Your task to perform on an android device: empty trash in google photos Image 0: 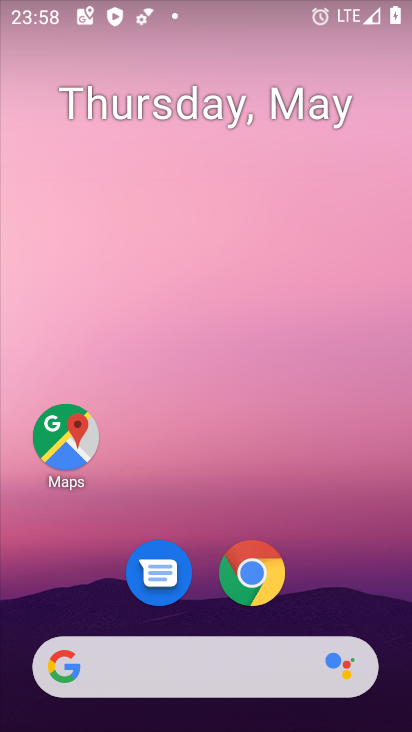
Step 0: drag from (200, 616) to (196, 215)
Your task to perform on an android device: empty trash in google photos Image 1: 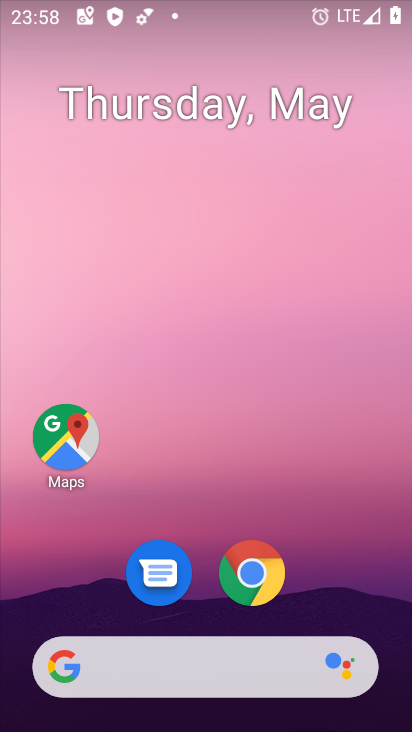
Step 1: drag from (206, 609) to (206, 186)
Your task to perform on an android device: empty trash in google photos Image 2: 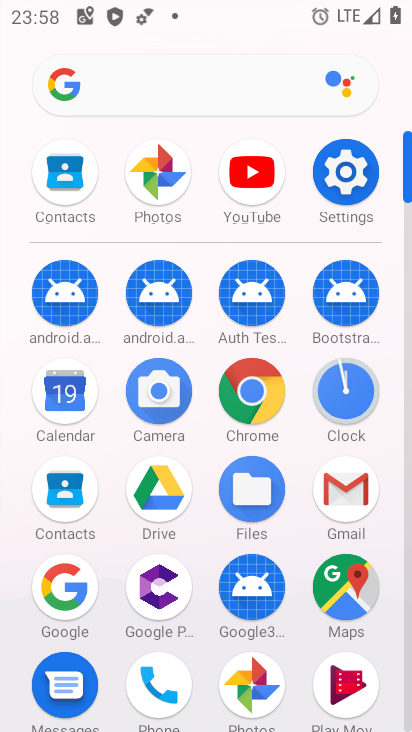
Step 2: click (233, 663)
Your task to perform on an android device: empty trash in google photos Image 3: 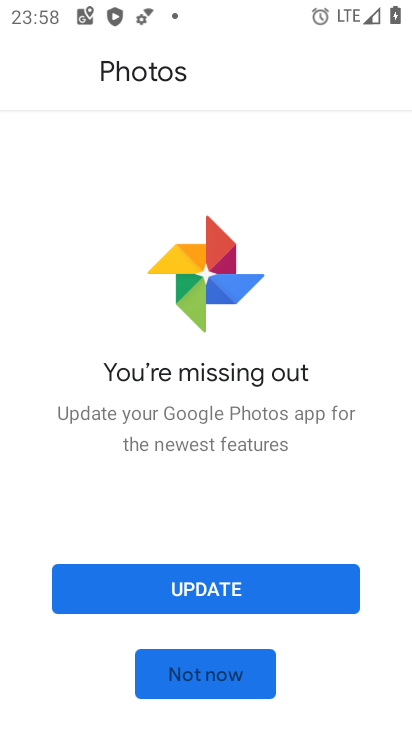
Step 3: click (164, 685)
Your task to perform on an android device: empty trash in google photos Image 4: 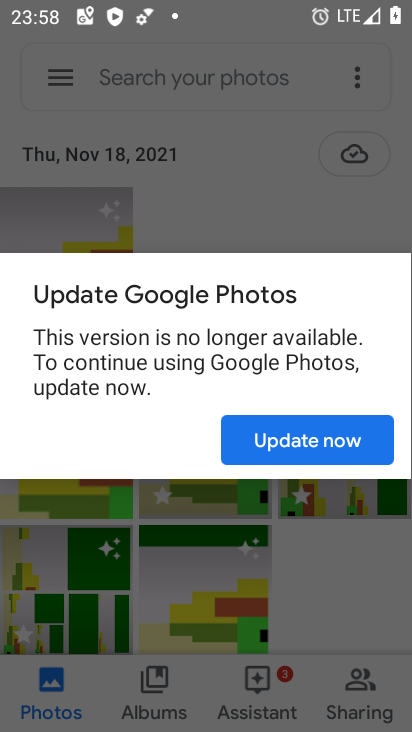
Step 4: click (262, 421)
Your task to perform on an android device: empty trash in google photos Image 5: 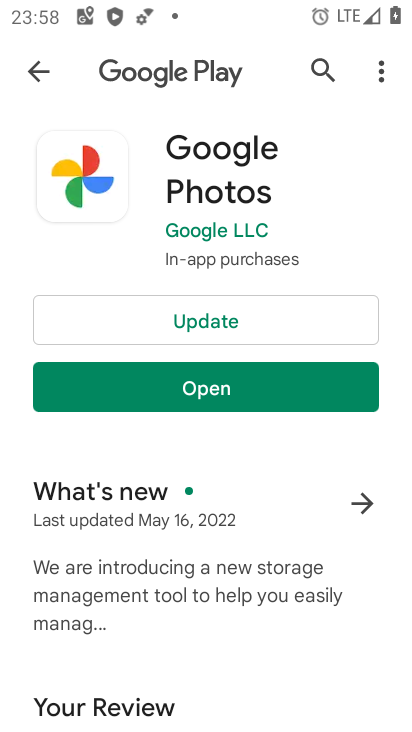
Step 5: click (240, 397)
Your task to perform on an android device: empty trash in google photos Image 6: 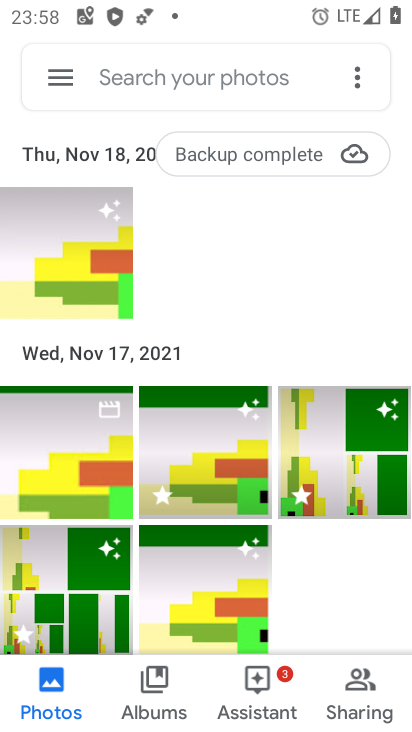
Step 6: click (57, 83)
Your task to perform on an android device: empty trash in google photos Image 7: 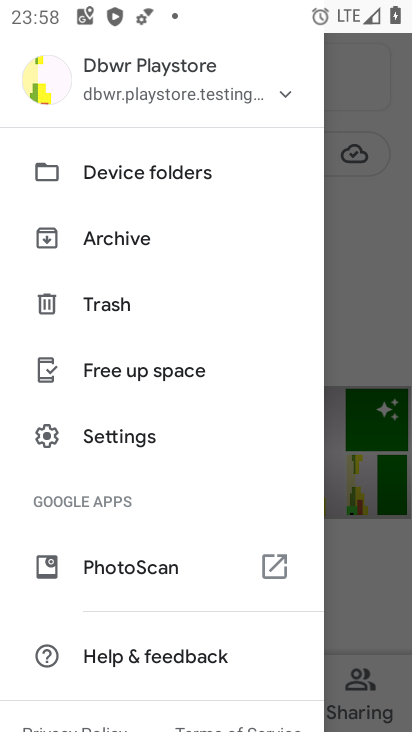
Step 7: click (128, 311)
Your task to perform on an android device: empty trash in google photos Image 8: 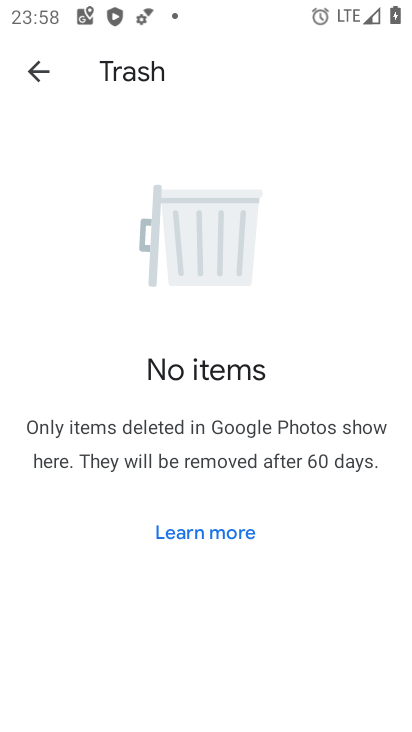
Step 8: task complete